Your task to perform on an android device: all mails in gmail Image 0: 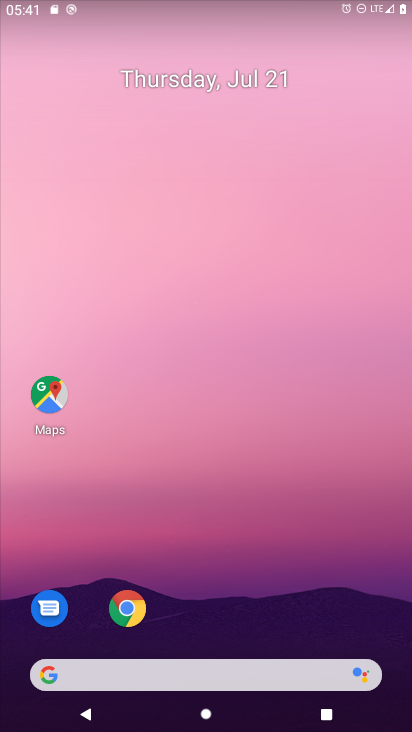
Step 0: drag from (344, 679) to (355, 79)
Your task to perform on an android device: all mails in gmail Image 1: 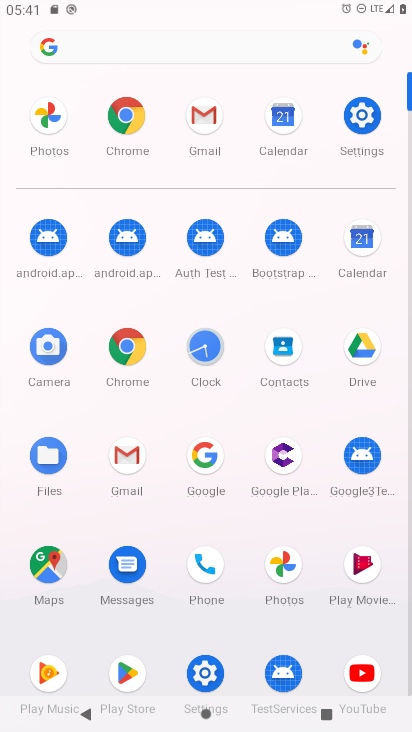
Step 1: click (128, 460)
Your task to perform on an android device: all mails in gmail Image 2: 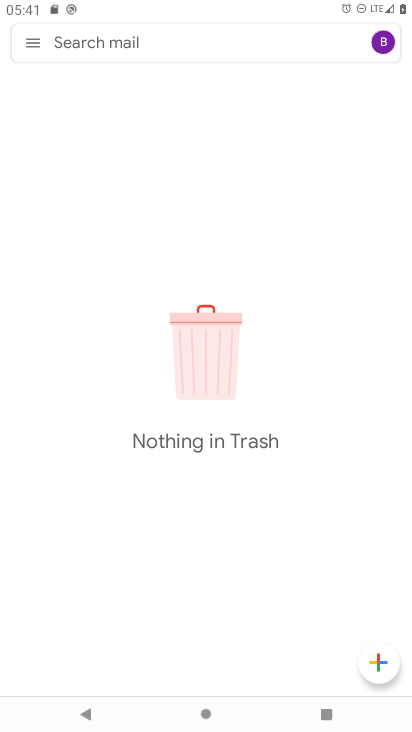
Step 2: click (36, 35)
Your task to perform on an android device: all mails in gmail Image 3: 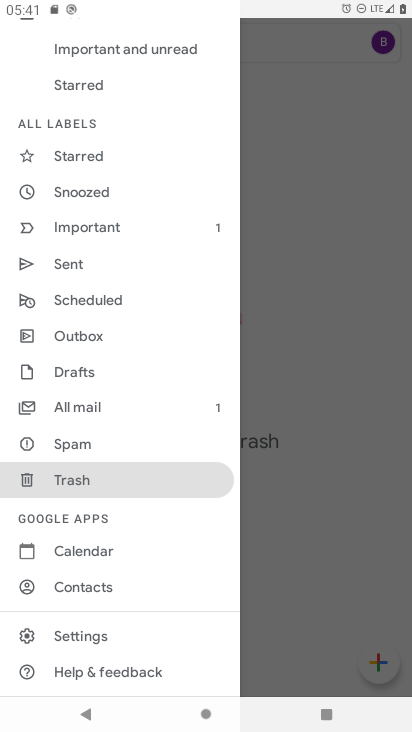
Step 3: click (87, 412)
Your task to perform on an android device: all mails in gmail Image 4: 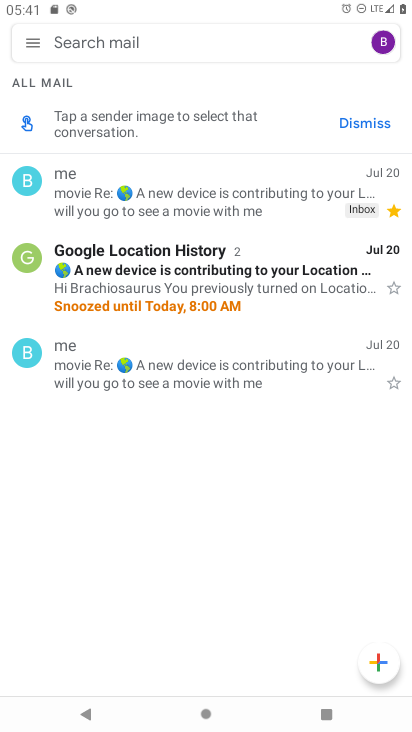
Step 4: task complete